Your task to perform on an android device: Go to Google Image 0: 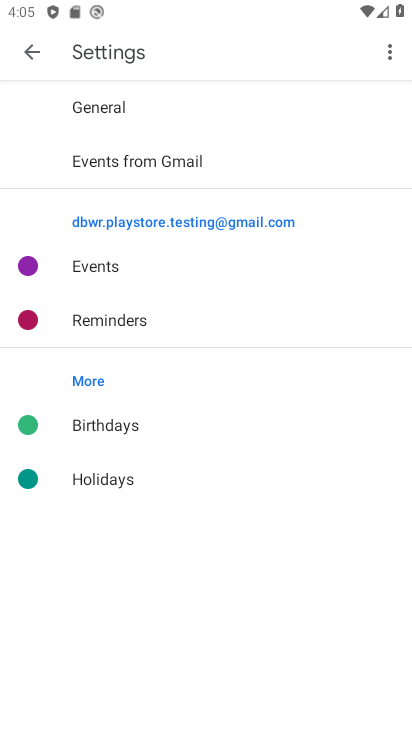
Step 0: press back button
Your task to perform on an android device: Go to Google Image 1: 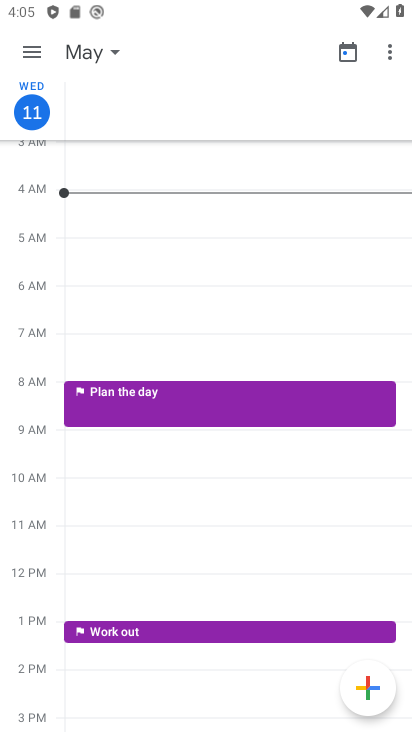
Step 1: press back button
Your task to perform on an android device: Go to Google Image 2: 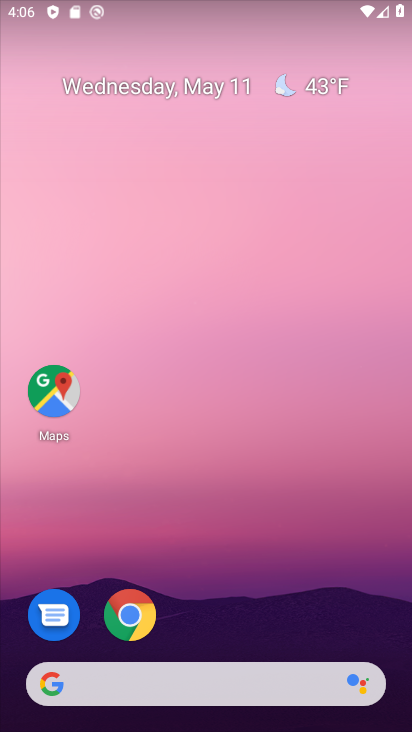
Step 2: drag from (207, 472) to (163, 35)
Your task to perform on an android device: Go to Google Image 3: 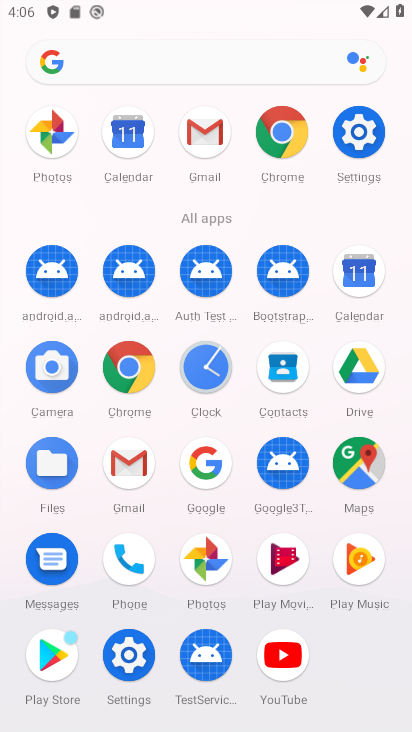
Step 3: click (122, 371)
Your task to perform on an android device: Go to Google Image 4: 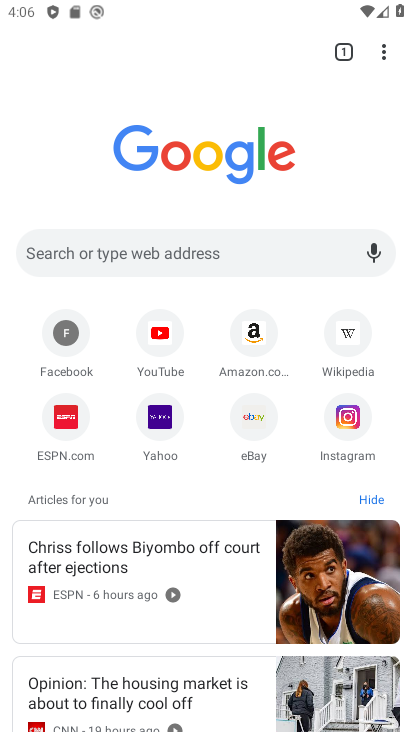
Step 4: click (231, 245)
Your task to perform on an android device: Go to Google Image 5: 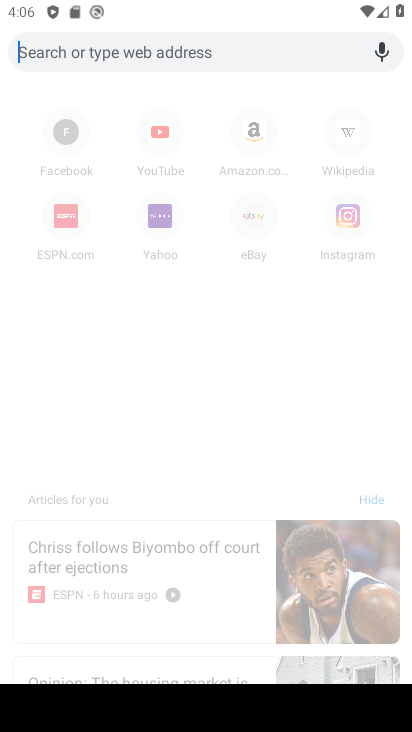
Step 5: type "Google"
Your task to perform on an android device: Go to Google Image 6: 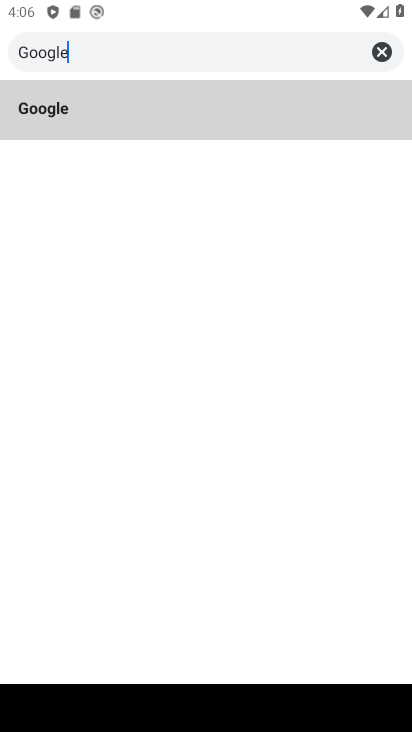
Step 6: type ""
Your task to perform on an android device: Go to Google Image 7: 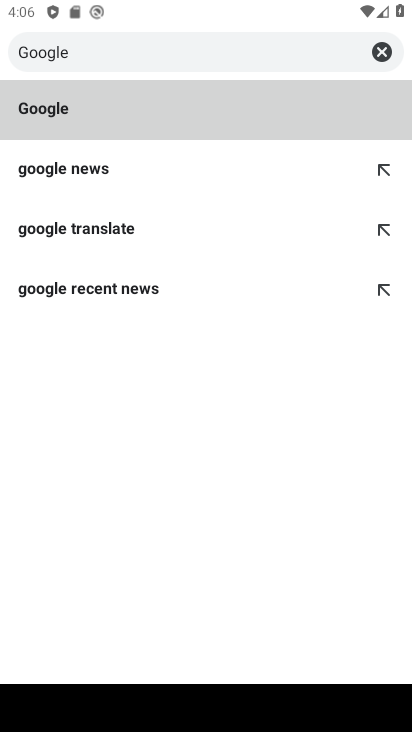
Step 7: click (85, 93)
Your task to perform on an android device: Go to Google Image 8: 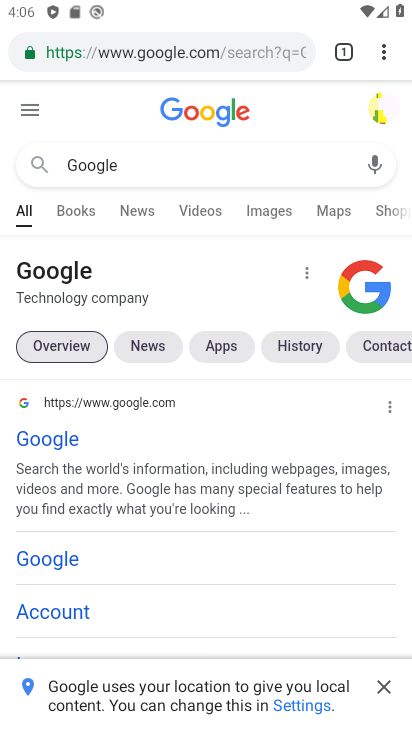
Step 8: drag from (153, 575) to (152, 334)
Your task to perform on an android device: Go to Google Image 9: 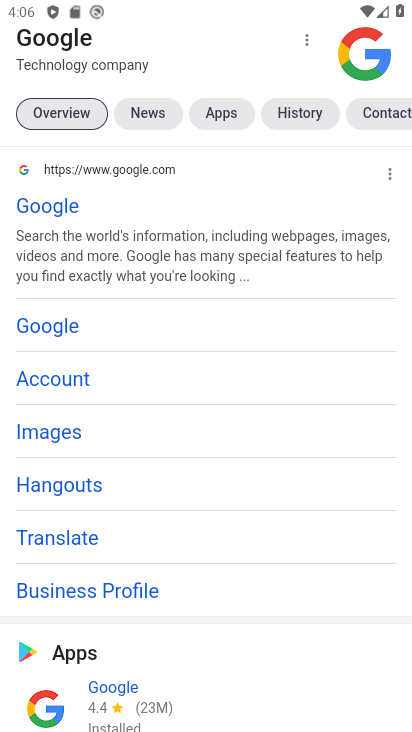
Step 9: click (43, 305)
Your task to perform on an android device: Go to Google Image 10: 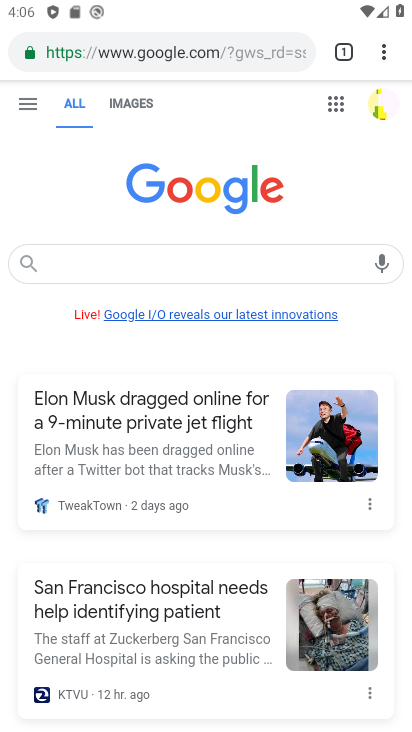
Step 10: task complete